Your task to perform on an android device: Toggle the flashlight Image 0: 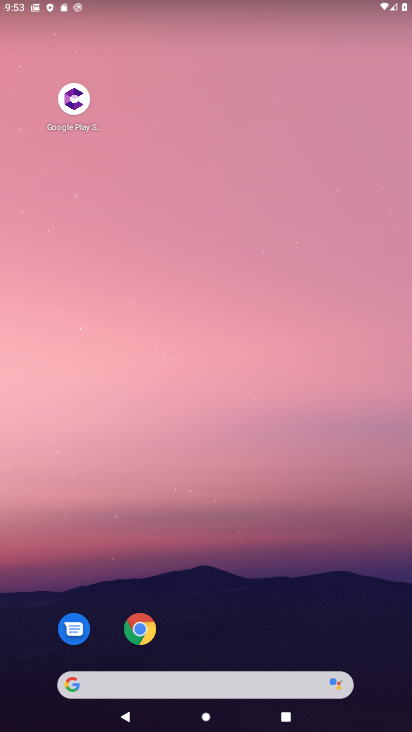
Step 0: drag from (196, 2) to (262, 575)
Your task to perform on an android device: Toggle the flashlight Image 1: 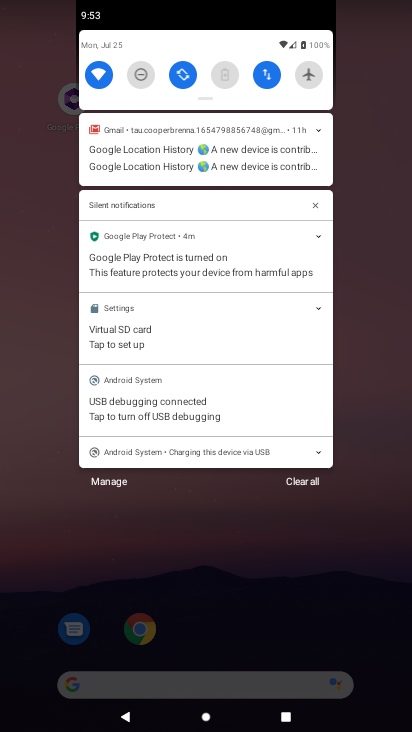
Step 1: task complete